Your task to perform on an android device: Open the map Image 0: 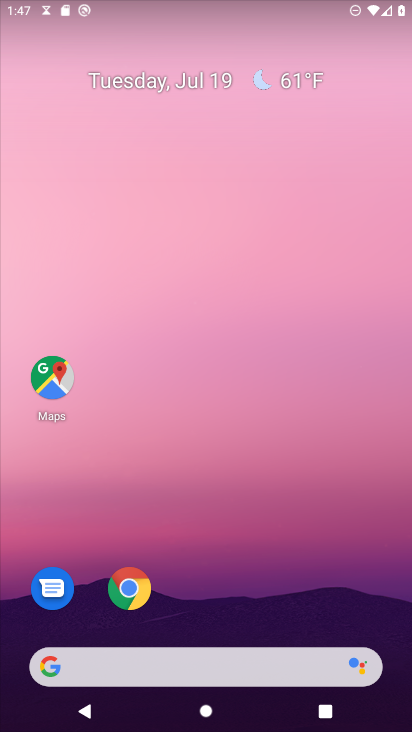
Step 0: drag from (247, 676) to (197, 206)
Your task to perform on an android device: Open the map Image 1: 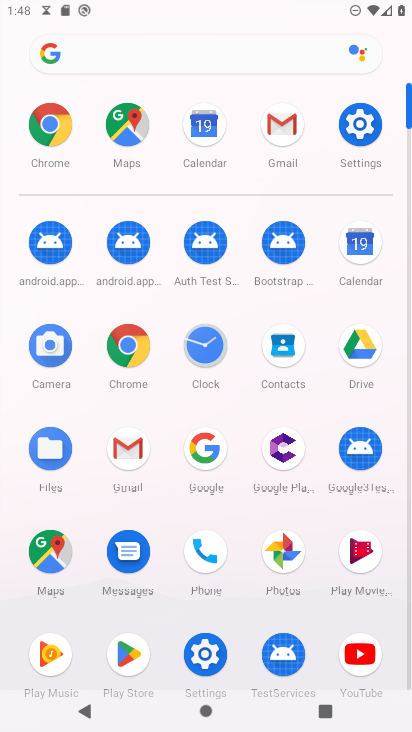
Step 1: click (137, 135)
Your task to perform on an android device: Open the map Image 2: 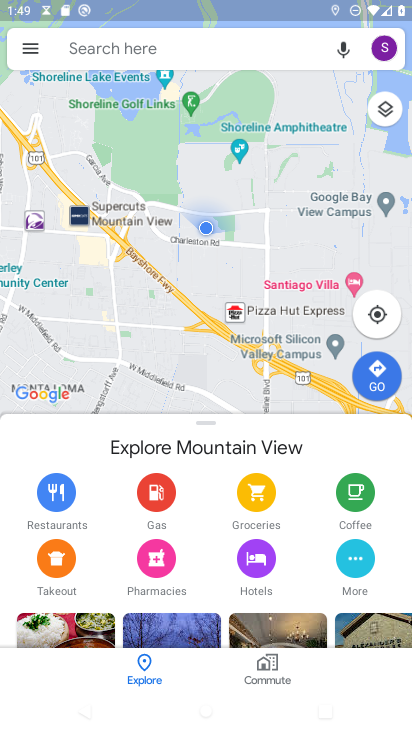
Step 2: task complete